Your task to perform on an android device: Go to display settings Image 0: 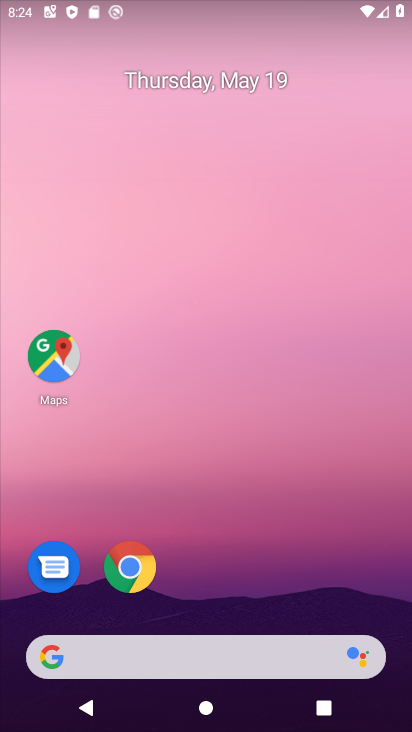
Step 0: drag from (216, 589) to (295, 137)
Your task to perform on an android device: Go to display settings Image 1: 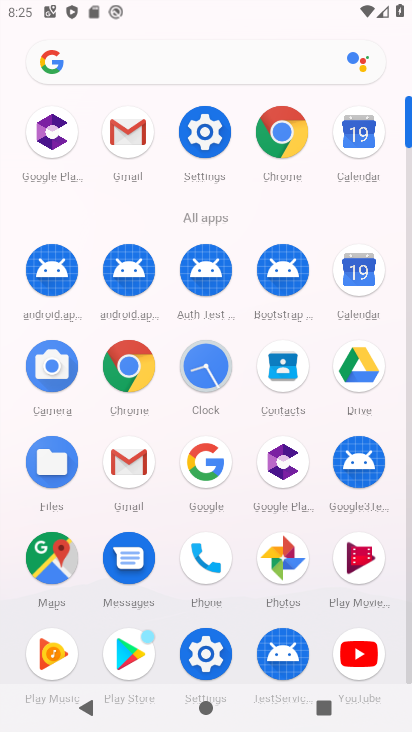
Step 1: click (209, 653)
Your task to perform on an android device: Go to display settings Image 2: 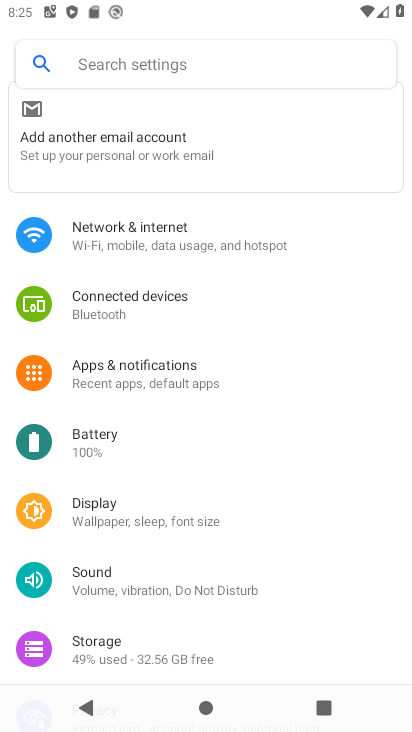
Step 2: click (115, 524)
Your task to perform on an android device: Go to display settings Image 3: 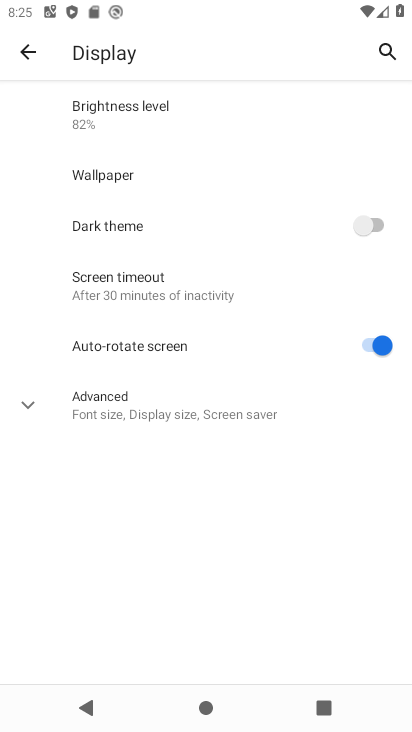
Step 3: task complete